Your task to perform on an android device: Open location settings Image 0: 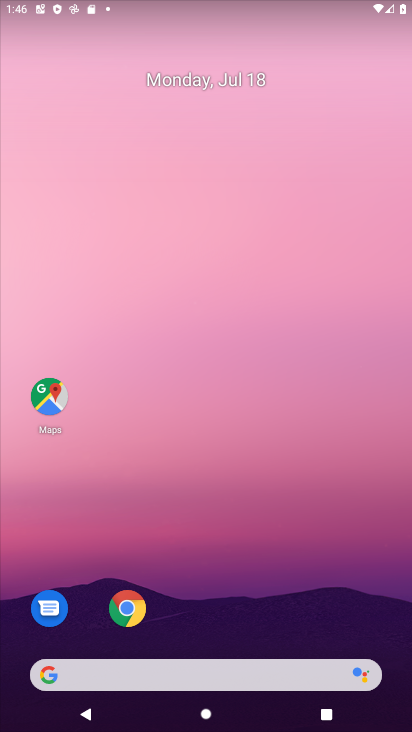
Step 0: drag from (377, 620) to (186, 63)
Your task to perform on an android device: Open location settings Image 1: 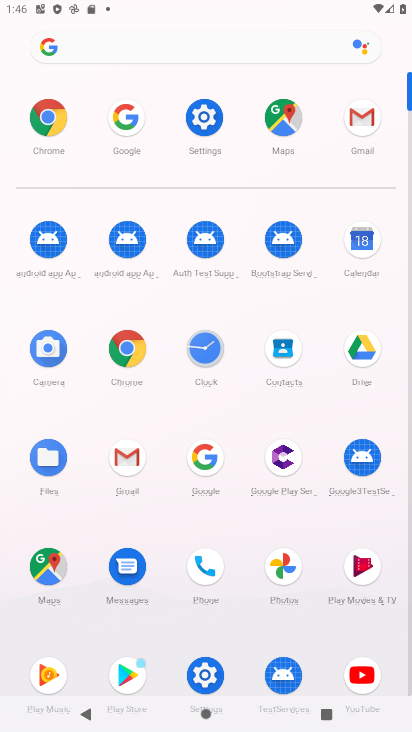
Step 1: click (233, 137)
Your task to perform on an android device: Open location settings Image 2: 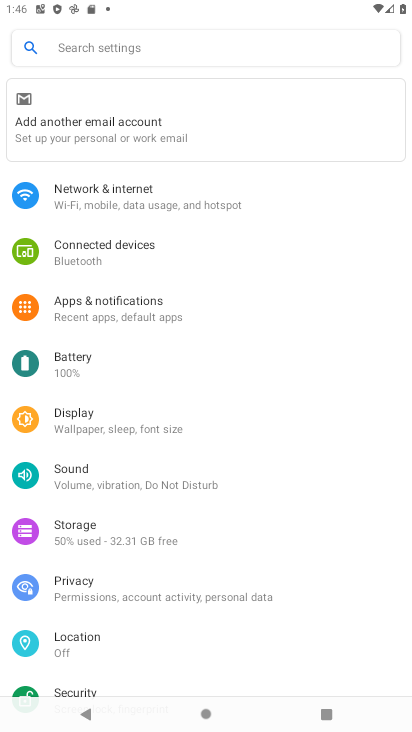
Step 2: click (95, 637)
Your task to perform on an android device: Open location settings Image 3: 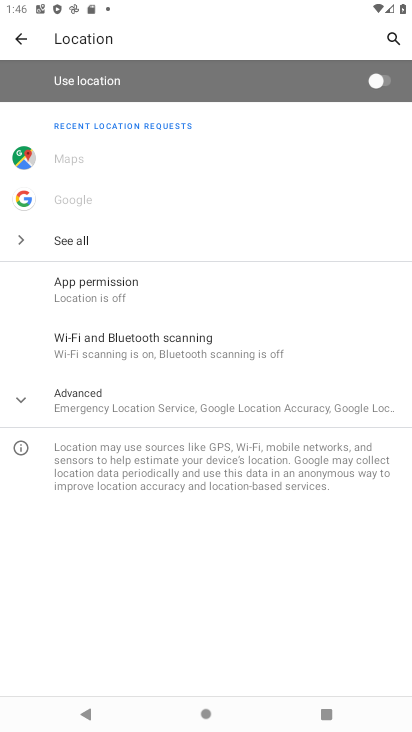
Step 3: task complete